Your task to perform on an android device: Open Amazon Image 0: 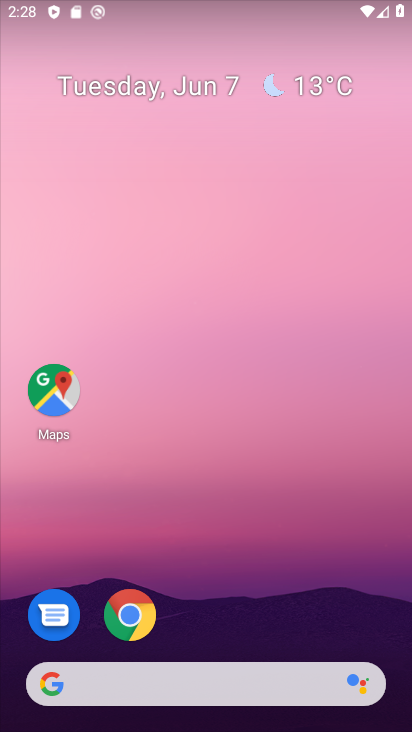
Step 0: click (132, 626)
Your task to perform on an android device: Open Amazon Image 1: 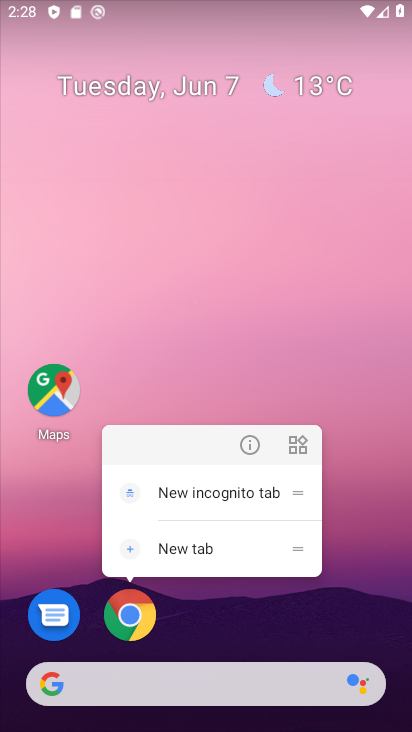
Step 1: click (133, 640)
Your task to perform on an android device: Open Amazon Image 2: 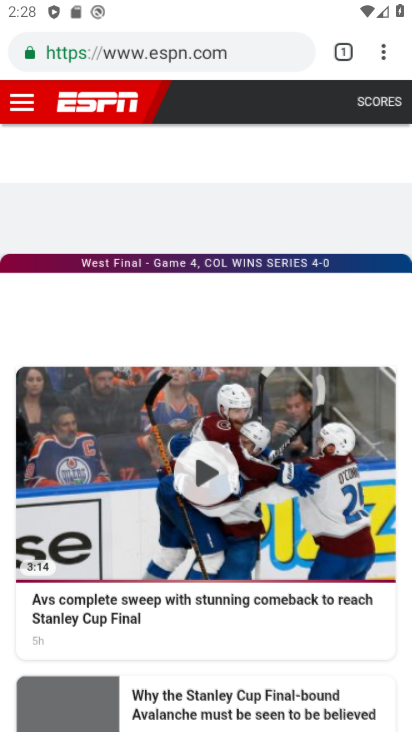
Step 2: drag from (393, 40) to (347, 102)
Your task to perform on an android device: Open Amazon Image 3: 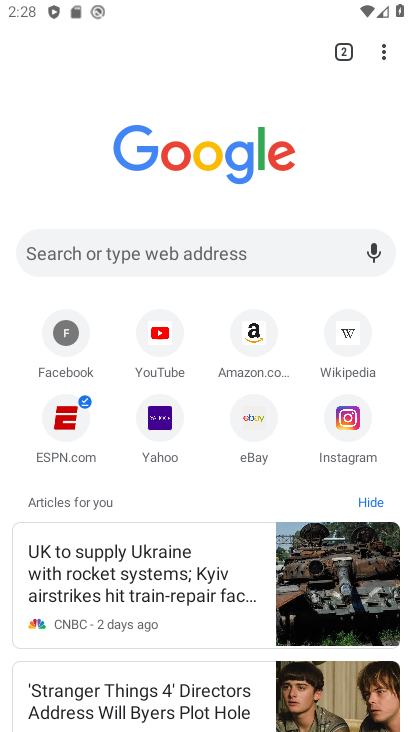
Step 3: click (249, 323)
Your task to perform on an android device: Open Amazon Image 4: 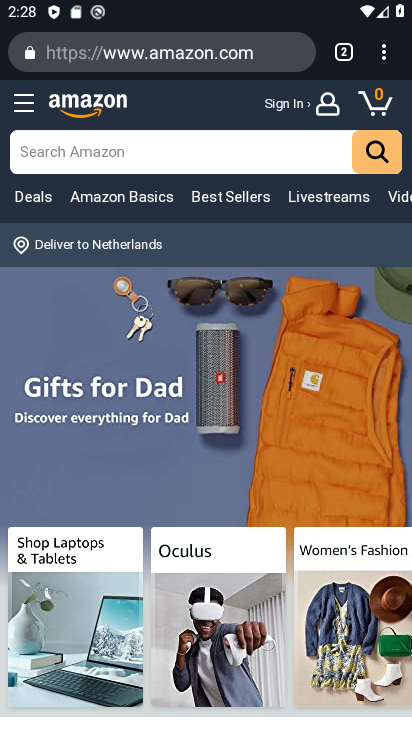
Step 4: task complete